Your task to perform on an android device: Open the stopwatch Image 0: 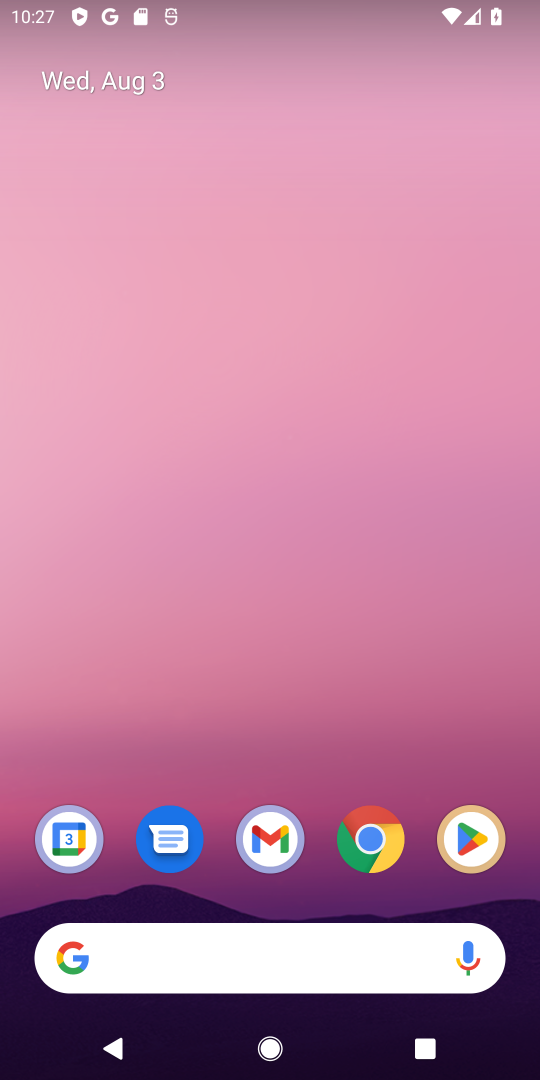
Step 0: drag from (231, 901) to (231, 270)
Your task to perform on an android device: Open the stopwatch Image 1: 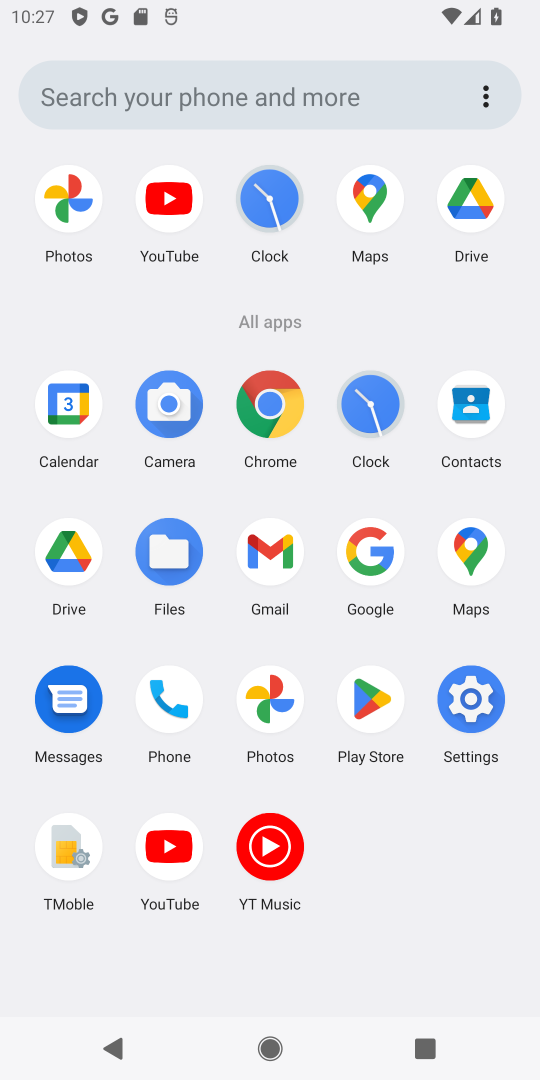
Step 1: click (369, 418)
Your task to perform on an android device: Open the stopwatch Image 2: 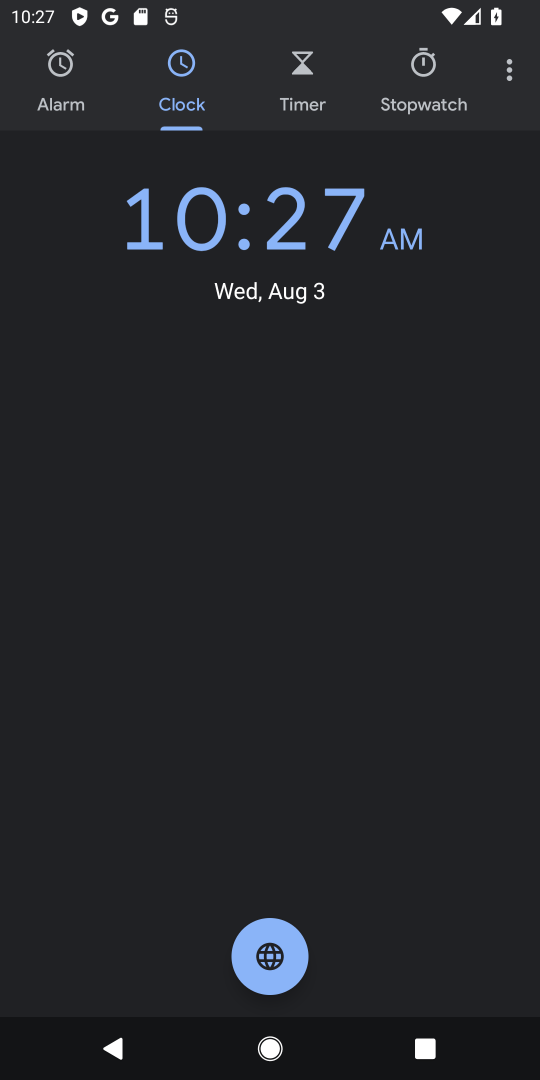
Step 2: click (438, 89)
Your task to perform on an android device: Open the stopwatch Image 3: 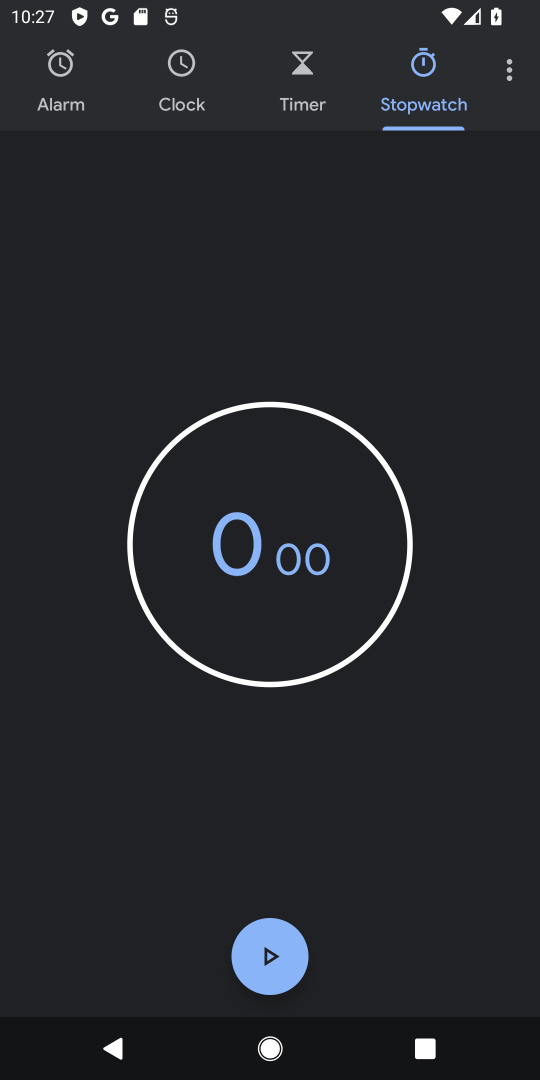
Step 3: click (266, 954)
Your task to perform on an android device: Open the stopwatch Image 4: 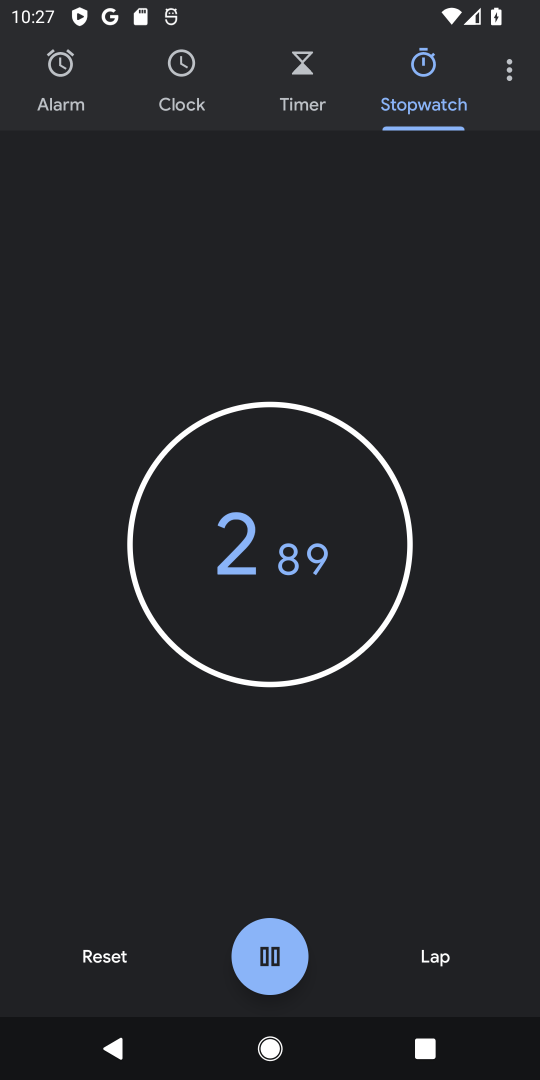
Step 4: task complete